Your task to perform on an android device: uninstall "DuckDuckGo Privacy Browser" Image 0: 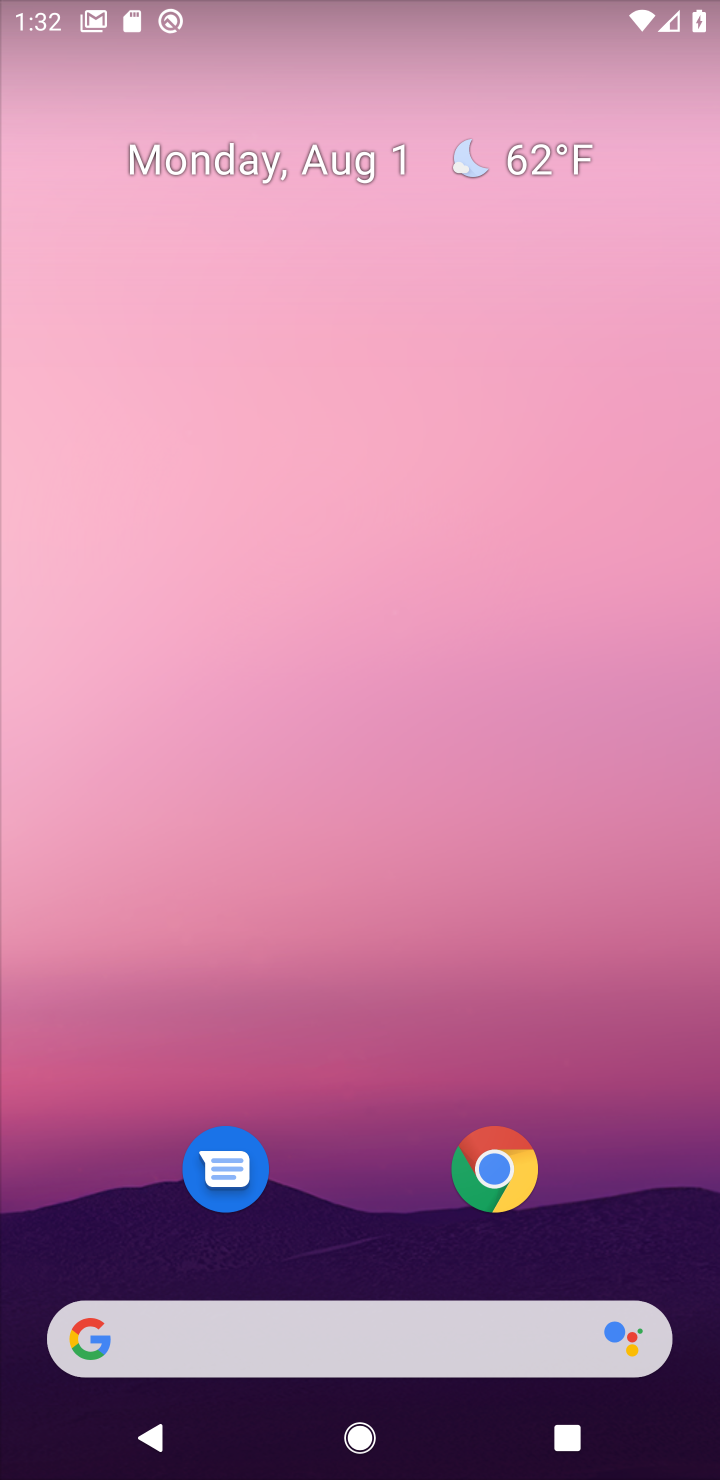
Step 0: drag from (298, 1149) to (280, 155)
Your task to perform on an android device: uninstall "DuckDuckGo Privacy Browser" Image 1: 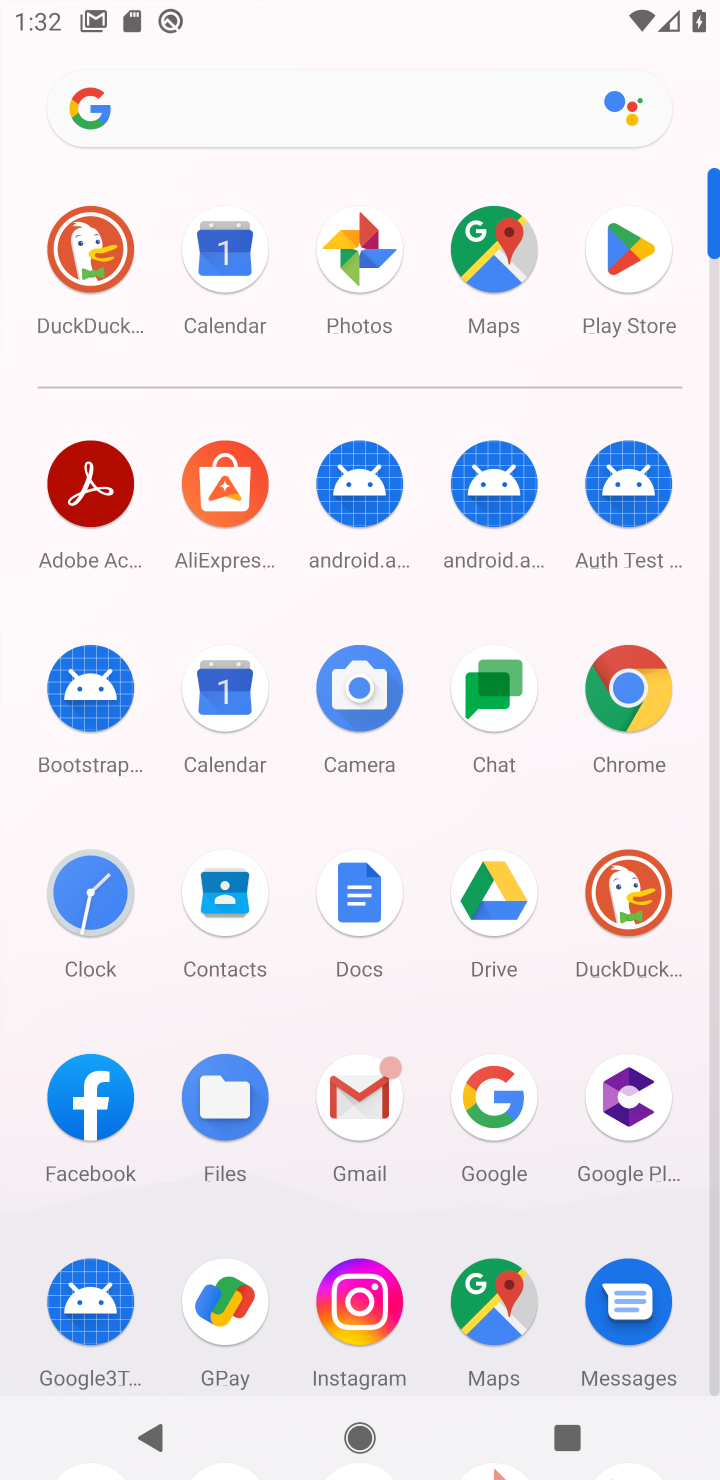
Step 1: click (627, 316)
Your task to perform on an android device: uninstall "DuckDuckGo Privacy Browser" Image 2: 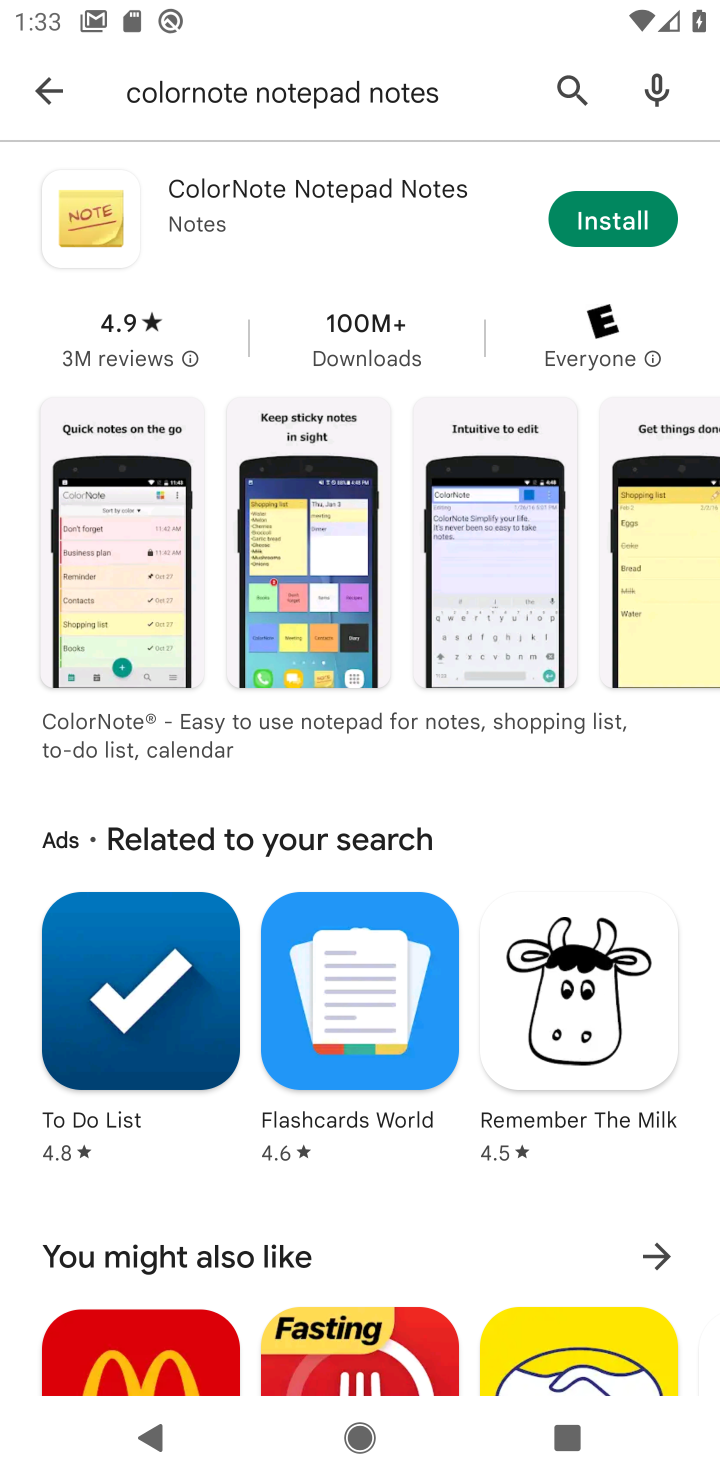
Step 2: click (48, 89)
Your task to perform on an android device: uninstall "DuckDuckGo Privacy Browser" Image 3: 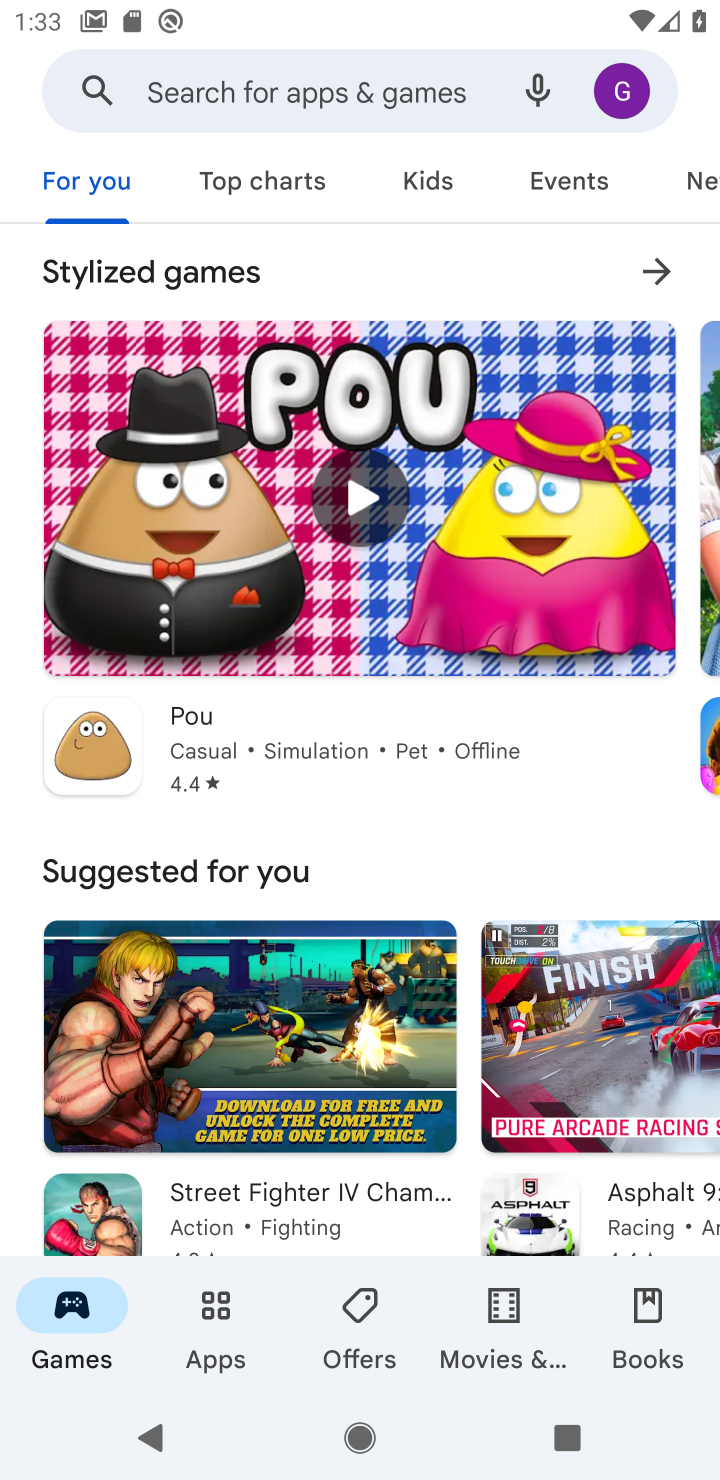
Step 3: click (220, 89)
Your task to perform on an android device: uninstall "DuckDuckGo Privacy Browser" Image 4: 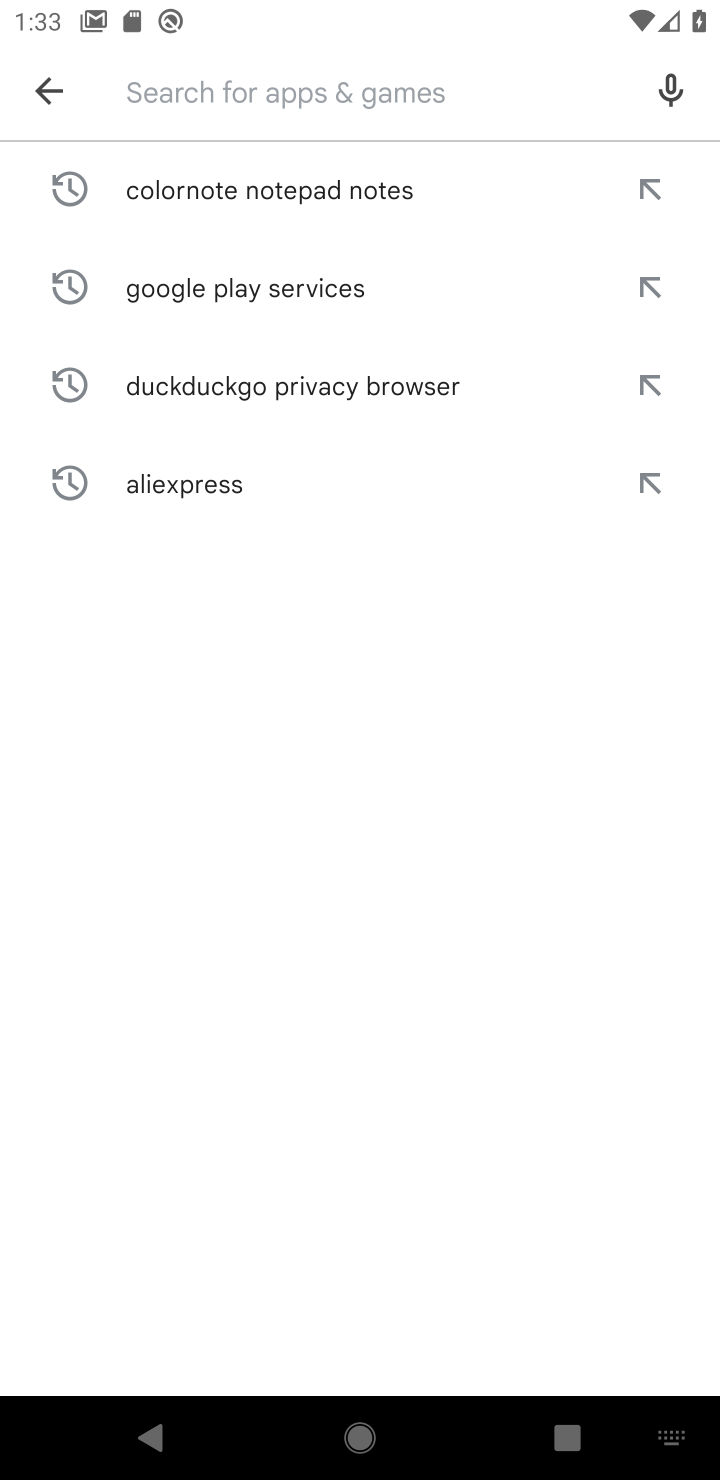
Step 4: type "DuckDuckGo Privacy Browser"
Your task to perform on an android device: uninstall "DuckDuckGo Privacy Browser" Image 5: 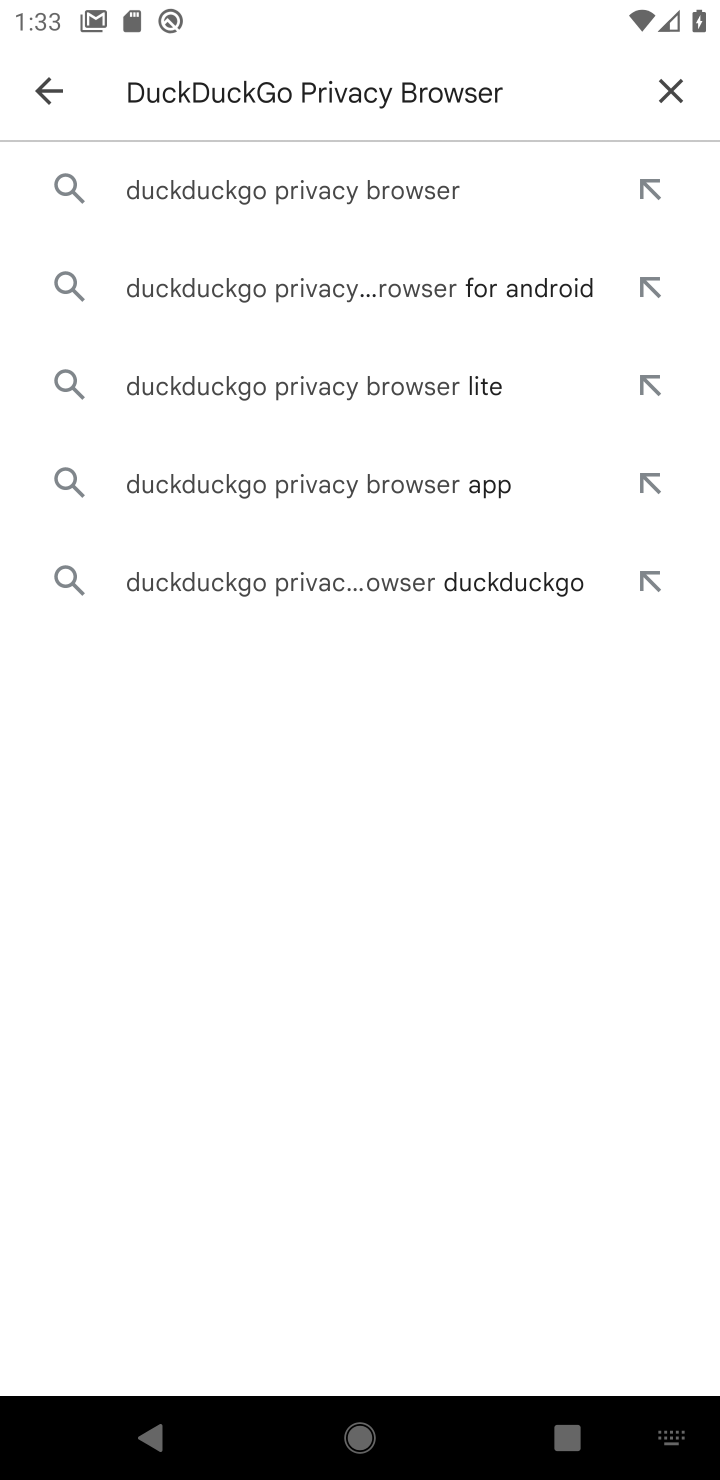
Step 5: click (425, 186)
Your task to perform on an android device: uninstall "DuckDuckGo Privacy Browser" Image 6: 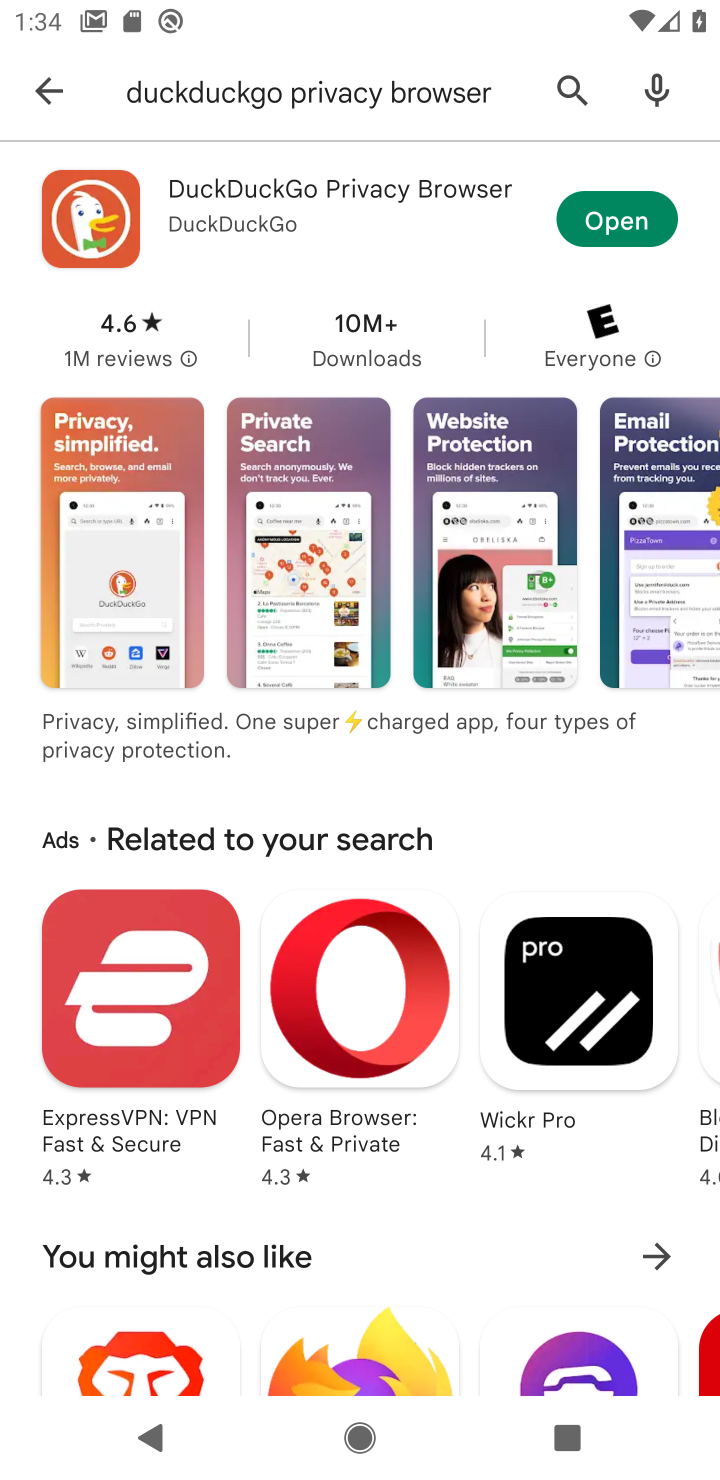
Step 6: click (609, 205)
Your task to perform on an android device: uninstall "DuckDuckGo Privacy Browser" Image 7: 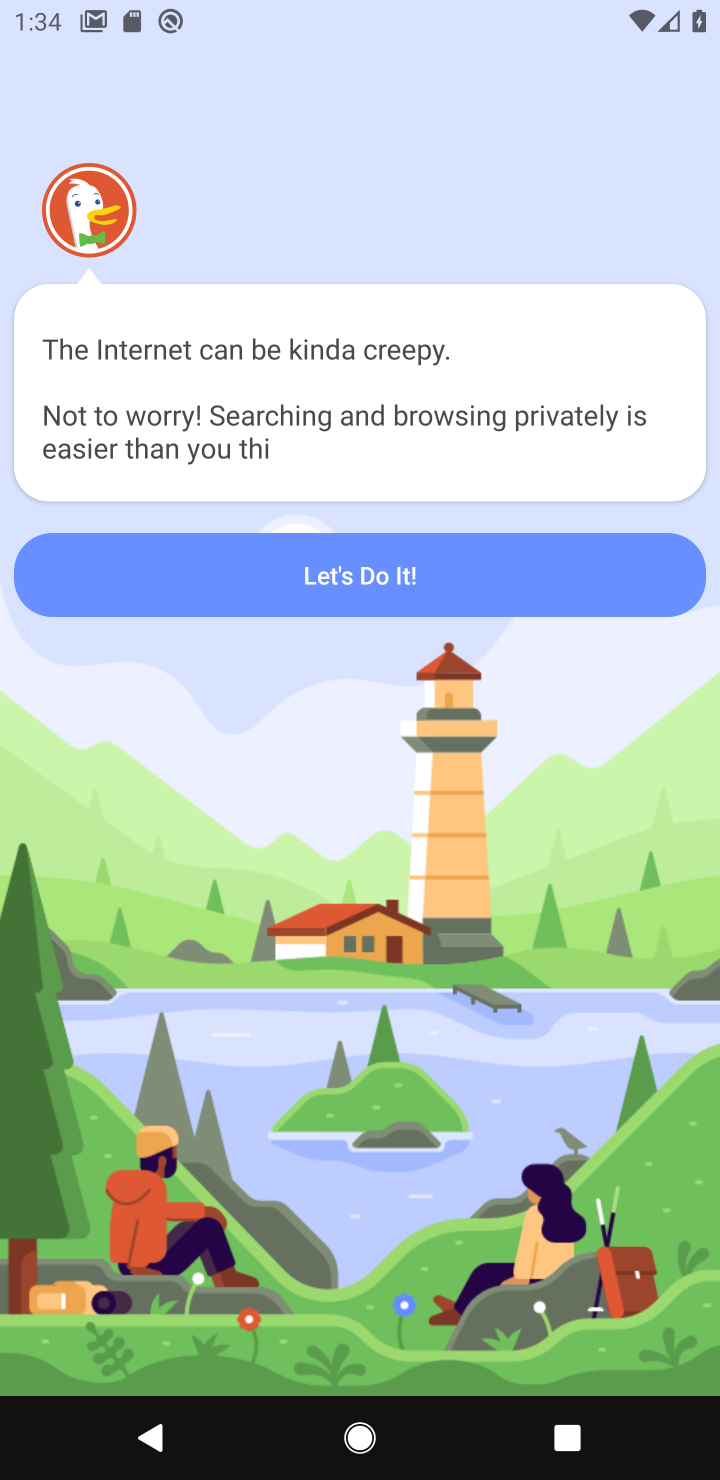
Step 7: task complete